Your task to perform on an android device: remove spam from my inbox in the gmail app Image 0: 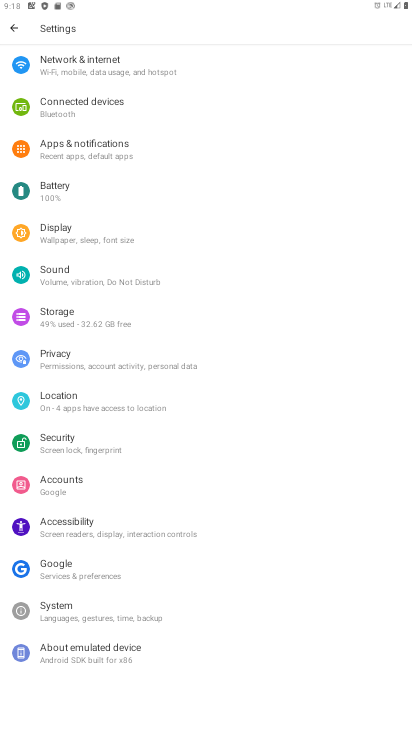
Step 0: press home button
Your task to perform on an android device: remove spam from my inbox in the gmail app Image 1: 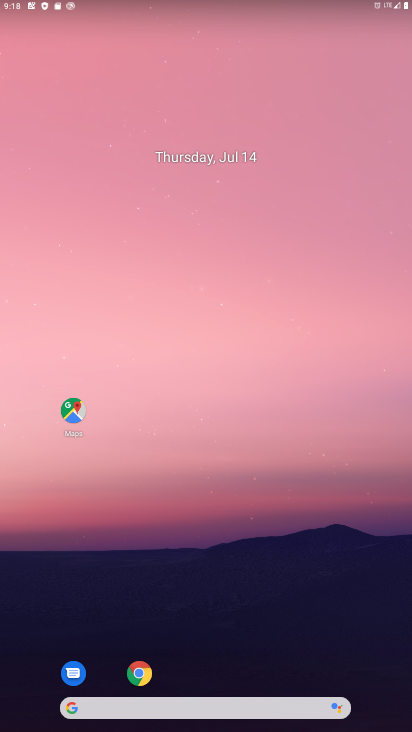
Step 1: drag from (194, 702) to (218, 217)
Your task to perform on an android device: remove spam from my inbox in the gmail app Image 2: 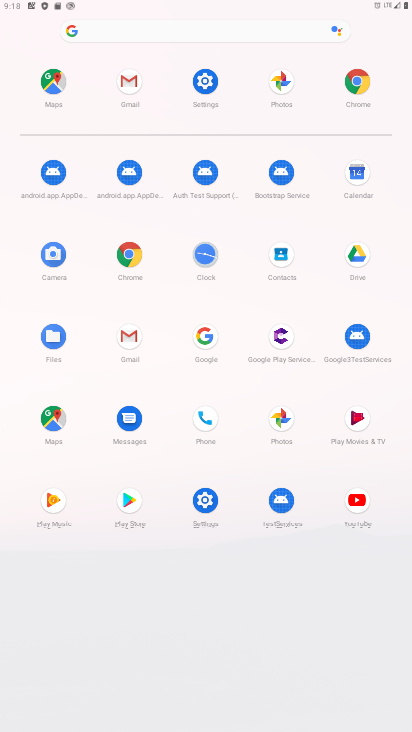
Step 2: click (128, 336)
Your task to perform on an android device: remove spam from my inbox in the gmail app Image 3: 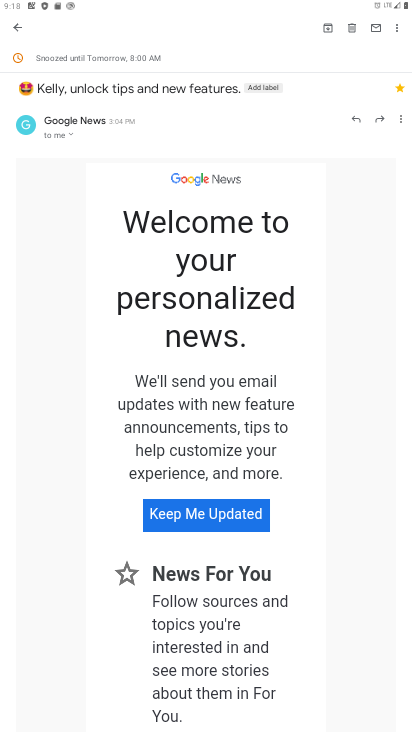
Step 3: press back button
Your task to perform on an android device: remove spam from my inbox in the gmail app Image 4: 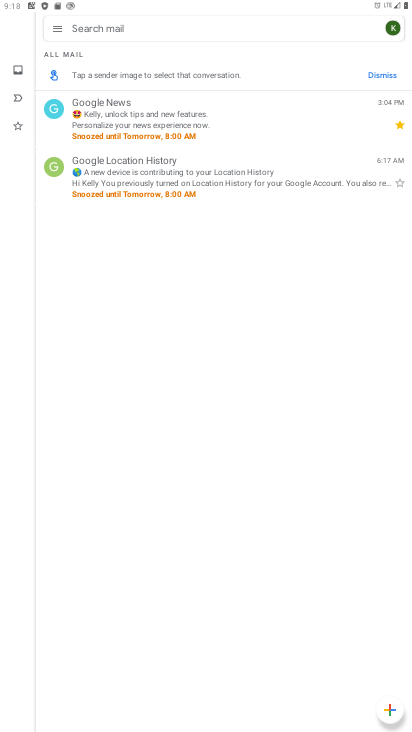
Step 4: click (55, 30)
Your task to perform on an android device: remove spam from my inbox in the gmail app Image 5: 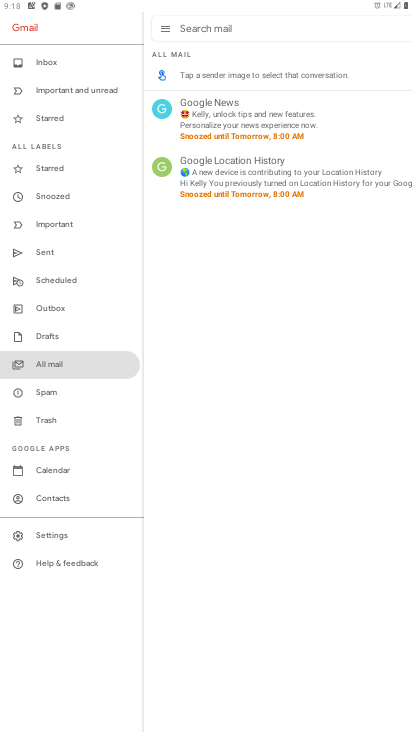
Step 5: click (46, 397)
Your task to perform on an android device: remove spam from my inbox in the gmail app Image 6: 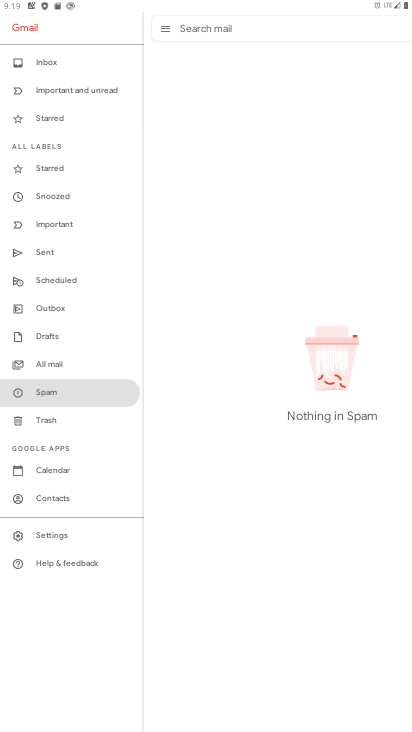
Step 6: task complete